Your task to perform on an android device: check the backup settings in the google photos Image 0: 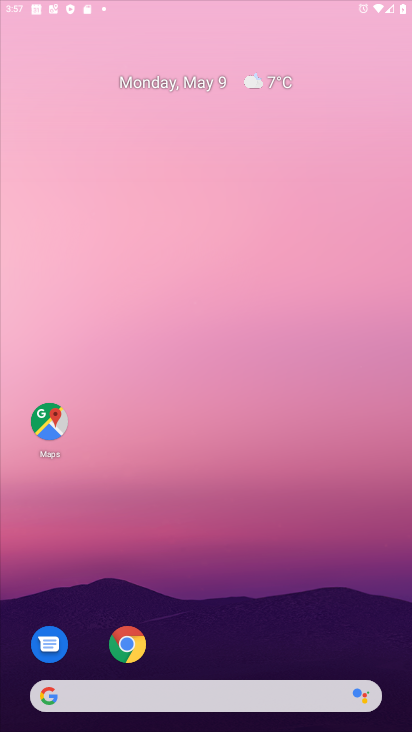
Step 0: click (81, 21)
Your task to perform on an android device: check the backup settings in the google photos Image 1: 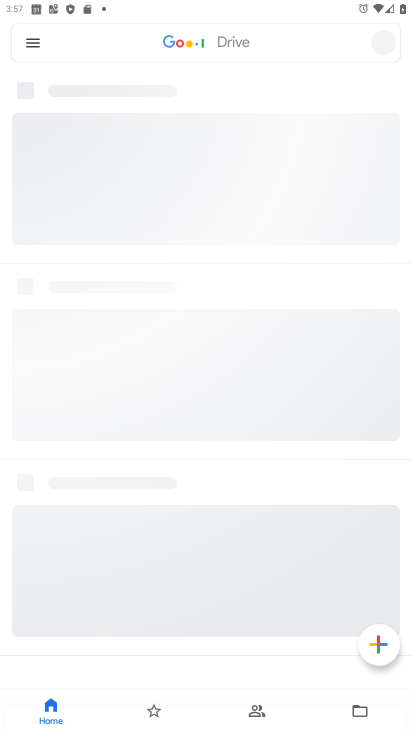
Step 1: drag from (201, 547) to (90, 105)
Your task to perform on an android device: check the backup settings in the google photos Image 2: 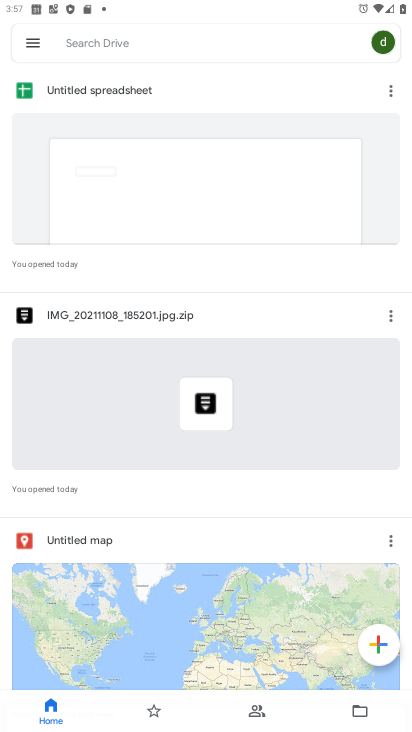
Step 2: press home button
Your task to perform on an android device: check the backup settings in the google photos Image 3: 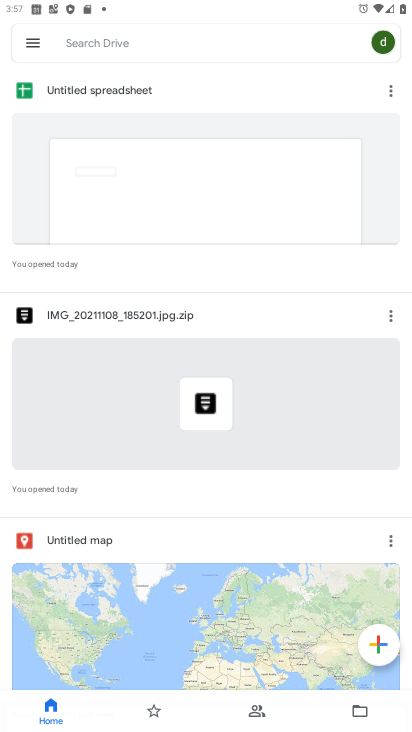
Step 3: press home button
Your task to perform on an android device: check the backup settings in the google photos Image 4: 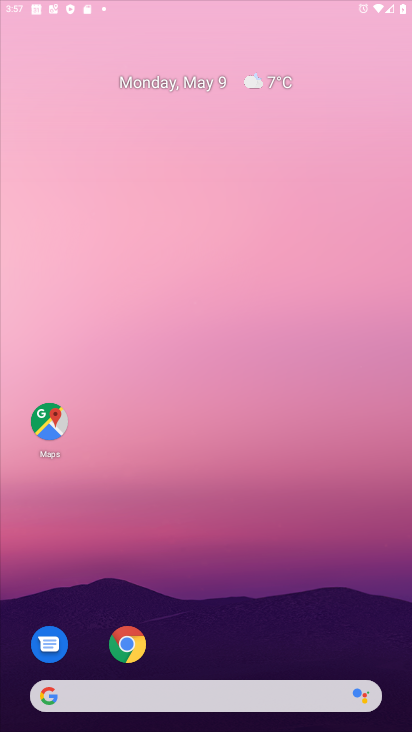
Step 4: press home button
Your task to perform on an android device: check the backup settings in the google photos Image 5: 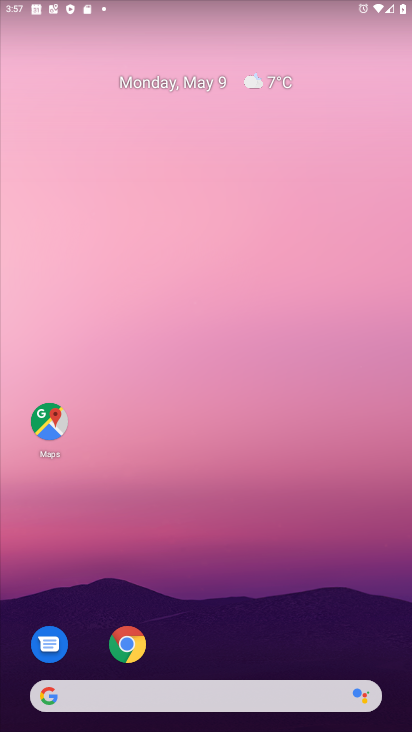
Step 5: drag from (213, 543) to (96, 96)
Your task to perform on an android device: check the backup settings in the google photos Image 6: 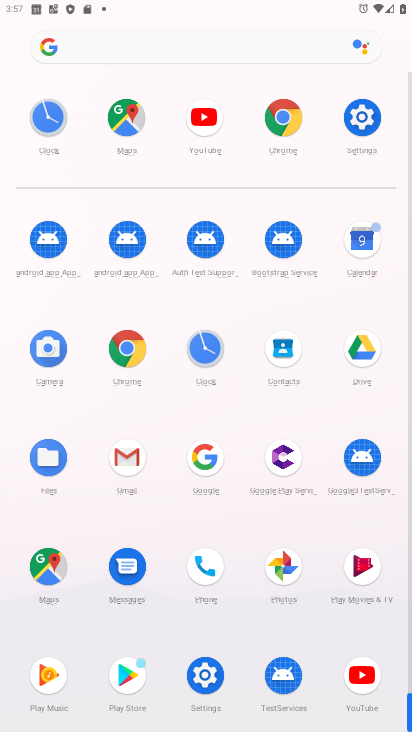
Step 6: click (290, 568)
Your task to perform on an android device: check the backup settings in the google photos Image 7: 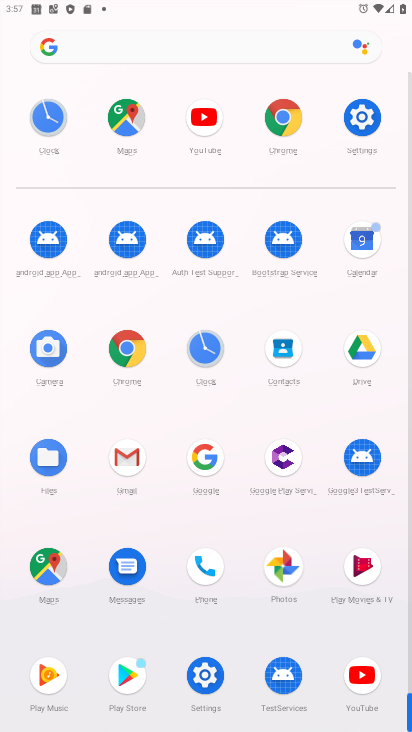
Step 7: click (287, 547)
Your task to perform on an android device: check the backup settings in the google photos Image 8: 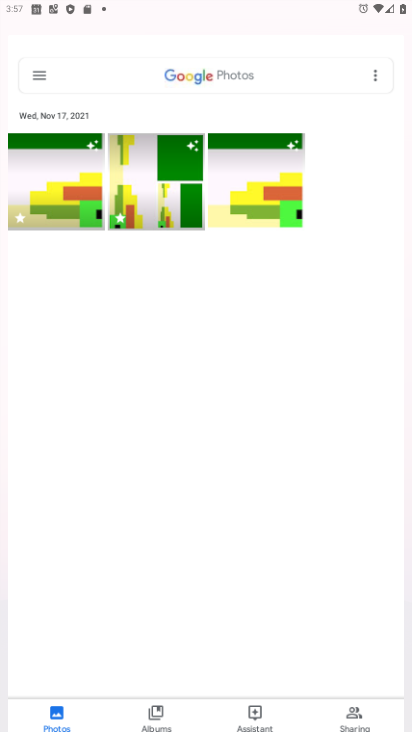
Step 8: click (287, 546)
Your task to perform on an android device: check the backup settings in the google photos Image 9: 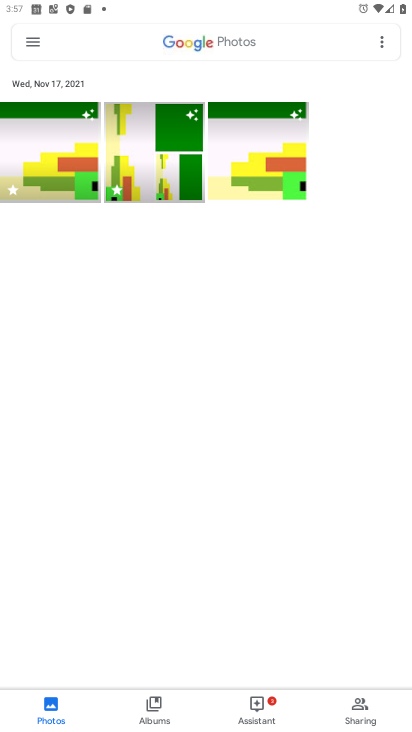
Step 9: click (287, 547)
Your task to perform on an android device: check the backup settings in the google photos Image 10: 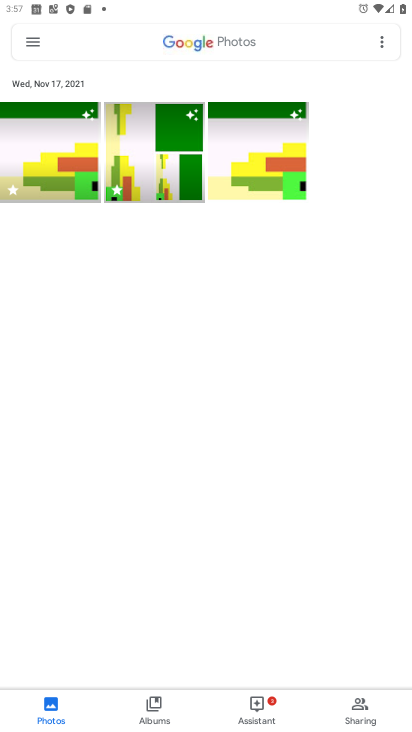
Step 10: click (59, 159)
Your task to perform on an android device: check the backup settings in the google photos Image 11: 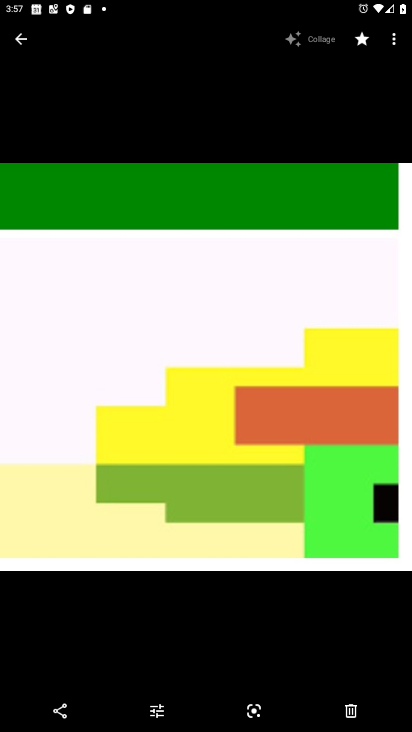
Step 11: click (14, 36)
Your task to perform on an android device: check the backup settings in the google photos Image 12: 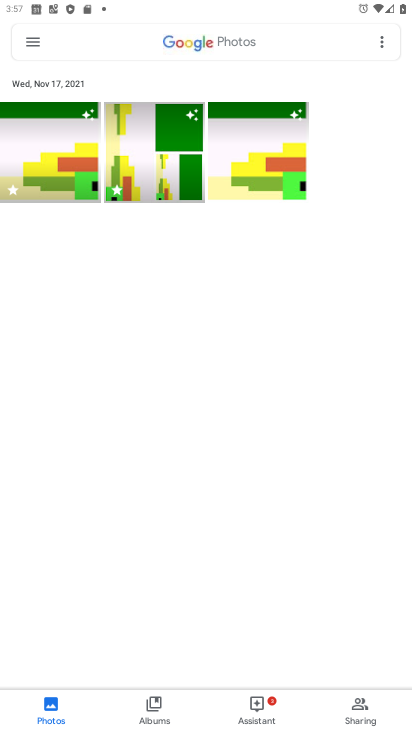
Step 12: task complete